Your task to perform on an android device: Go to Android settings Image 0: 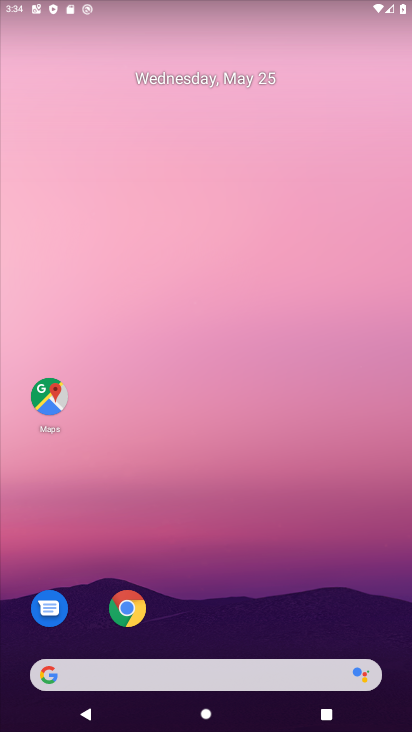
Step 0: drag from (248, 642) to (247, 133)
Your task to perform on an android device: Go to Android settings Image 1: 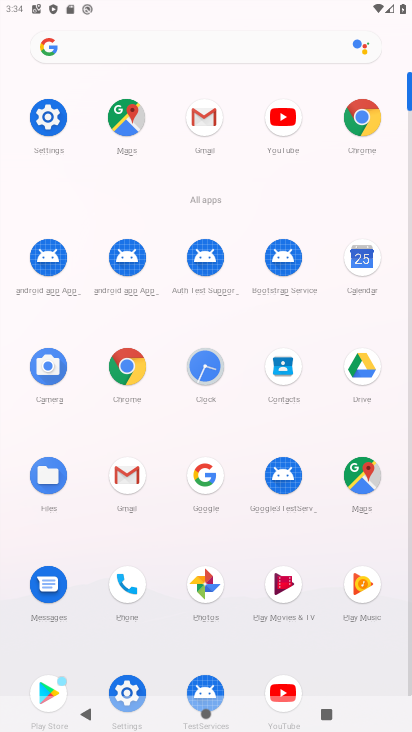
Step 1: click (46, 126)
Your task to perform on an android device: Go to Android settings Image 2: 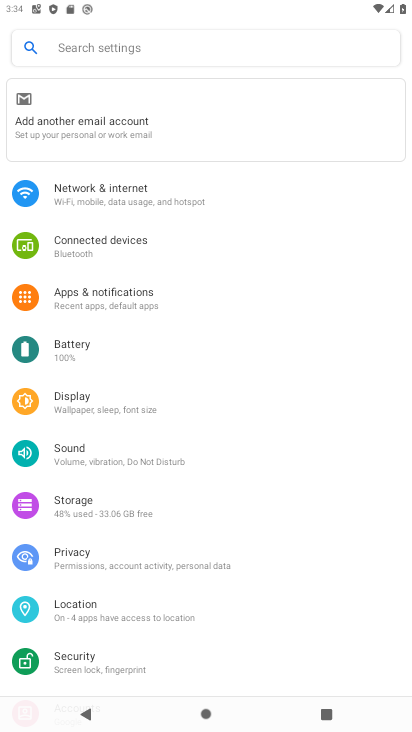
Step 2: task complete